Your task to perform on an android device: Open accessibility settings Image 0: 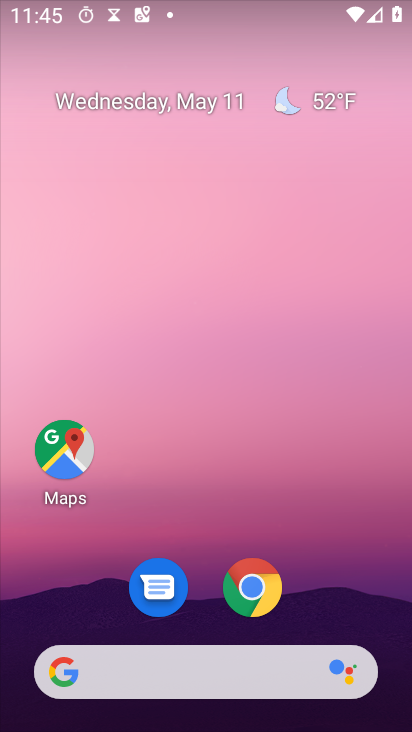
Step 0: drag from (249, 686) to (411, 184)
Your task to perform on an android device: Open accessibility settings Image 1: 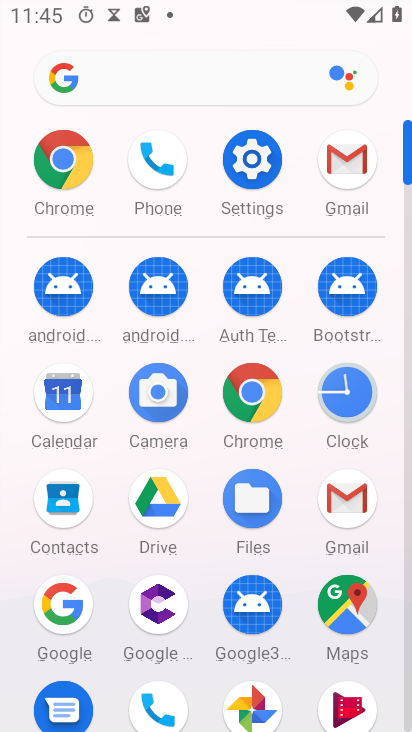
Step 1: click (248, 177)
Your task to perform on an android device: Open accessibility settings Image 2: 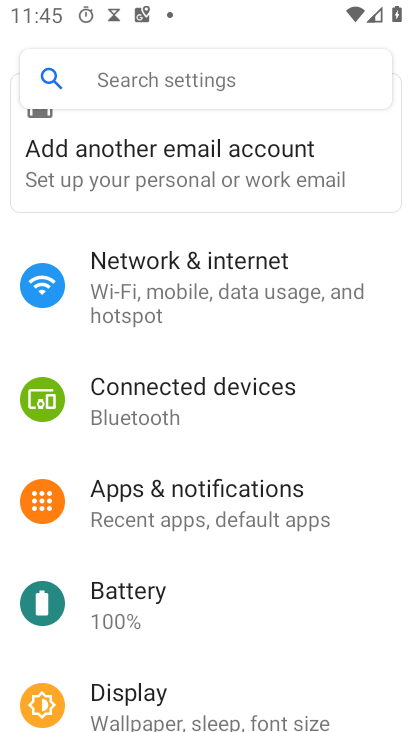
Step 2: click (184, 89)
Your task to perform on an android device: Open accessibility settings Image 3: 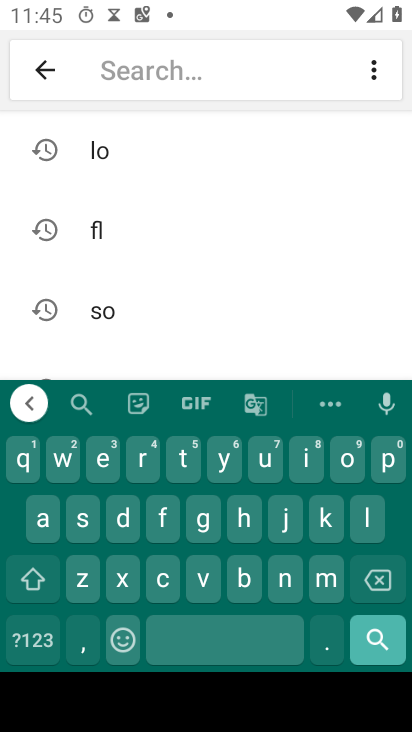
Step 3: click (39, 529)
Your task to perform on an android device: Open accessibility settings Image 4: 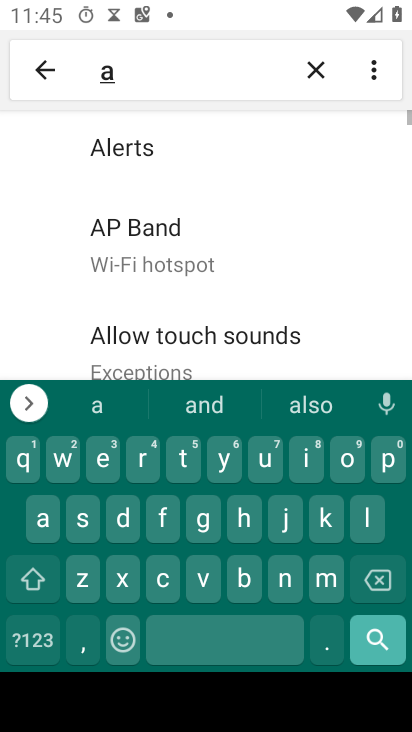
Step 4: click (161, 582)
Your task to perform on an android device: Open accessibility settings Image 5: 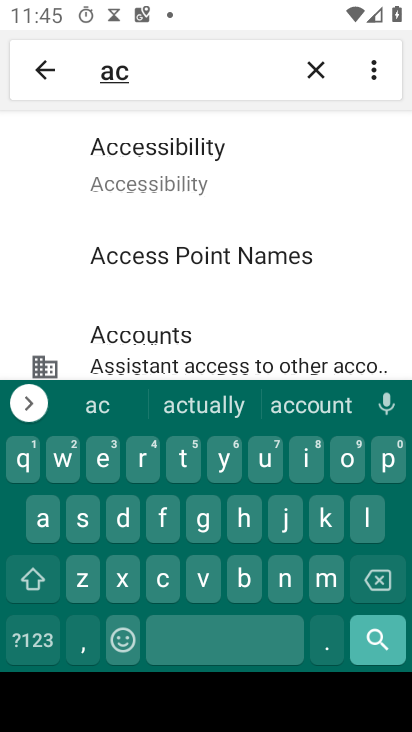
Step 5: click (182, 157)
Your task to perform on an android device: Open accessibility settings Image 6: 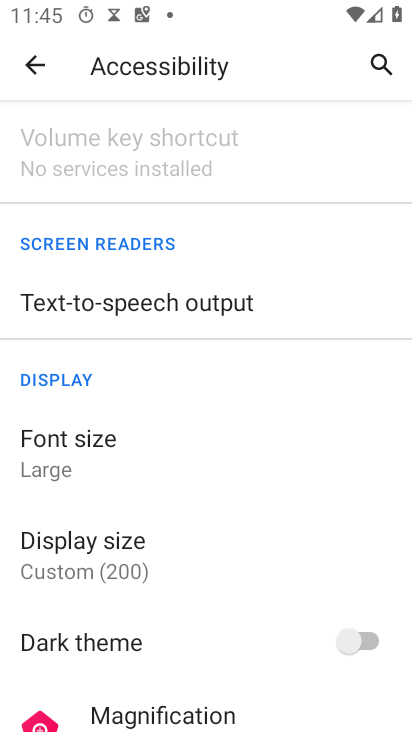
Step 6: task complete